Your task to perform on an android device: turn on airplane mode Image 0: 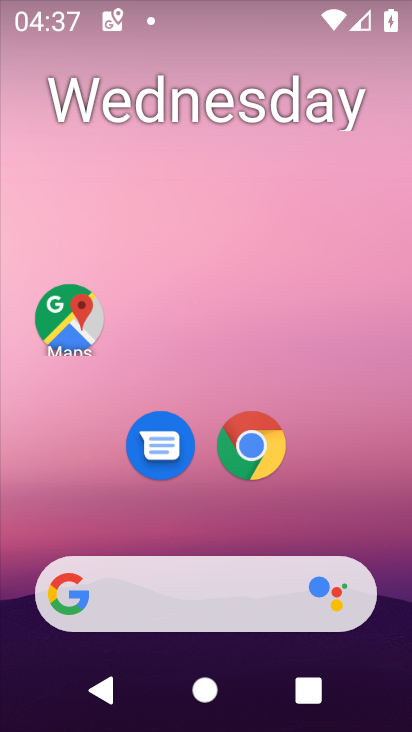
Step 0: drag from (276, 17) to (248, 454)
Your task to perform on an android device: turn on airplane mode Image 1: 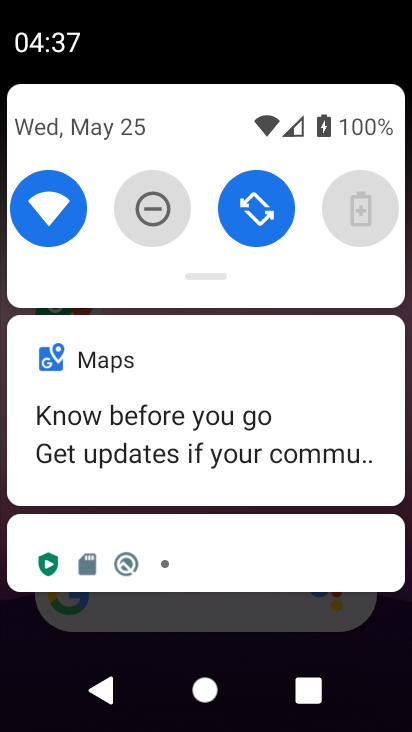
Step 1: drag from (226, 153) to (200, 716)
Your task to perform on an android device: turn on airplane mode Image 2: 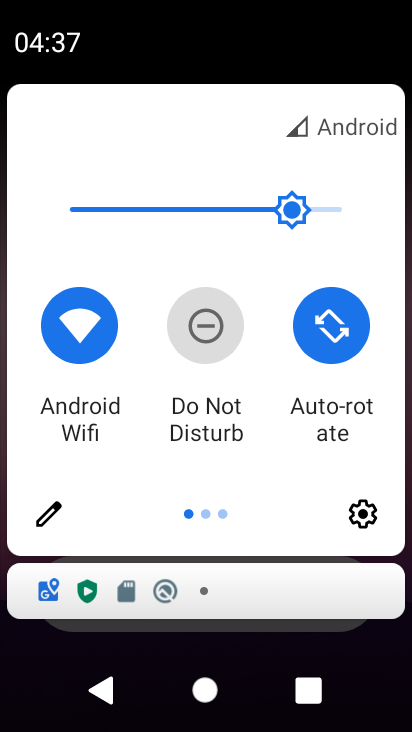
Step 2: drag from (363, 458) to (108, 465)
Your task to perform on an android device: turn on airplane mode Image 3: 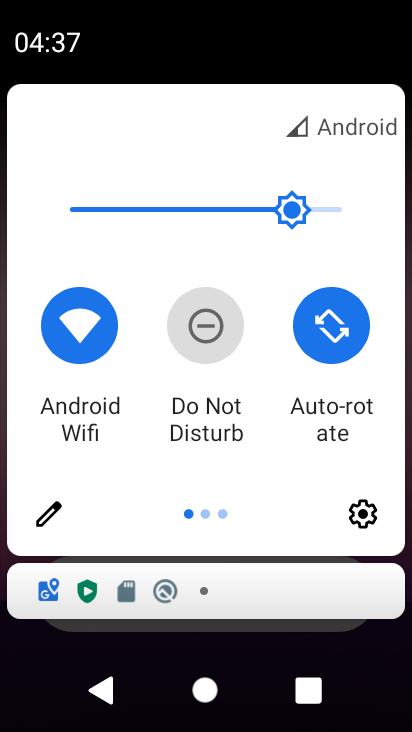
Step 3: drag from (366, 453) to (36, 460)
Your task to perform on an android device: turn on airplane mode Image 4: 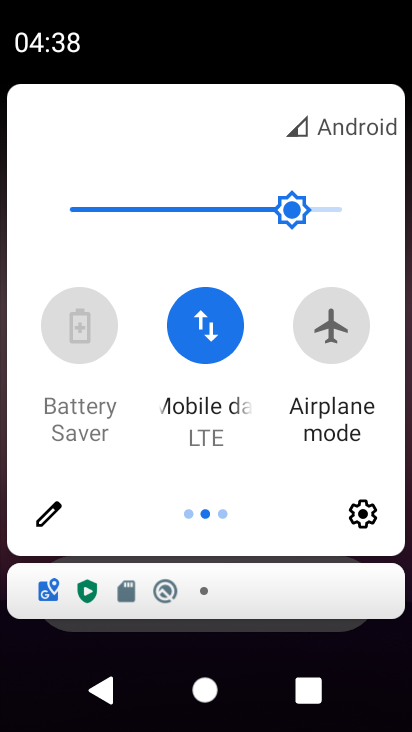
Step 4: click (312, 337)
Your task to perform on an android device: turn on airplane mode Image 5: 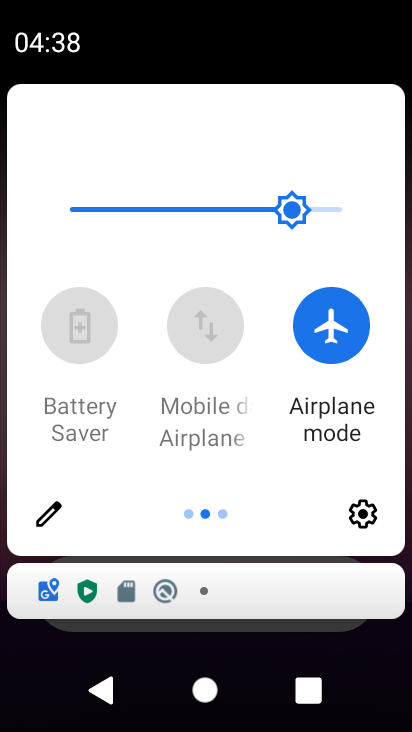
Step 5: task complete